Your task to perform on an android device: star an email in the gmail app Image 0: 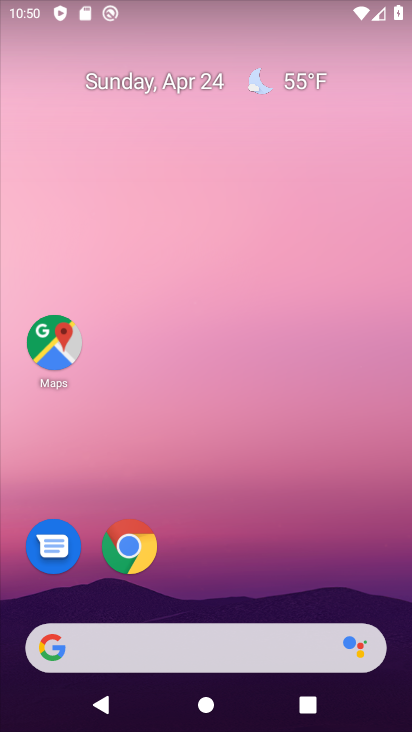
Step 0: drag from (238, 491) to (206, 32)
Your task to perform on an android device: star an email in the gmail app Image 1: 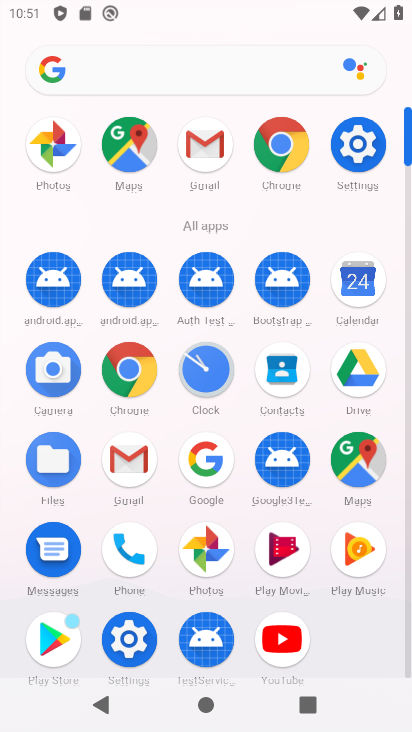
Step 1: click (203, 141)
Your task to perform on an android device: star an email in the gmail app Image 2: 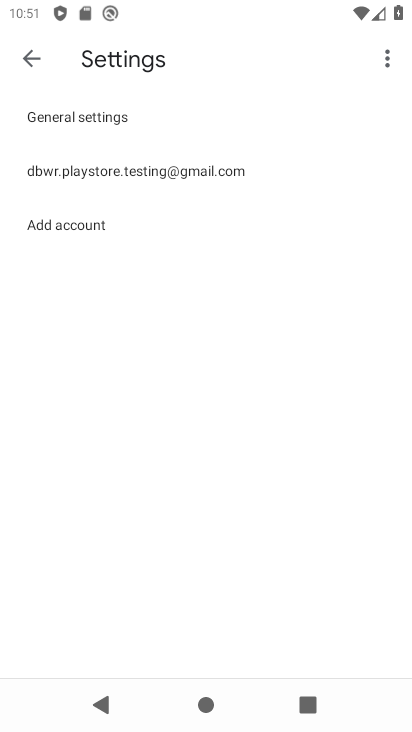
Step 2: press back button
Your task to perform on an android device: star an email in the gmail app Image 3: 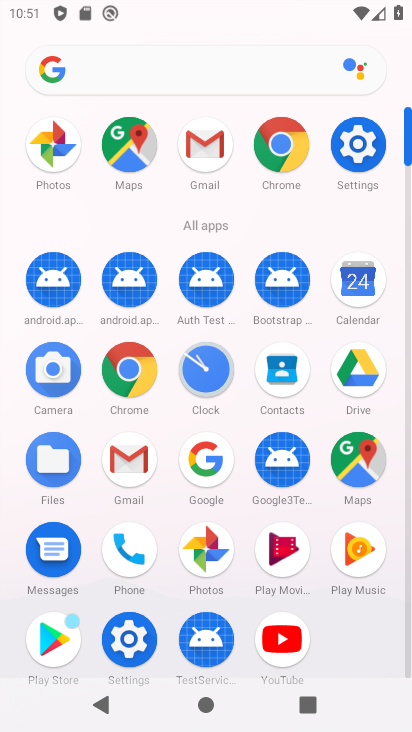
Step 3: click (203, 148)
Your task to perform on an android device: star an email in the gmail app Image 4: 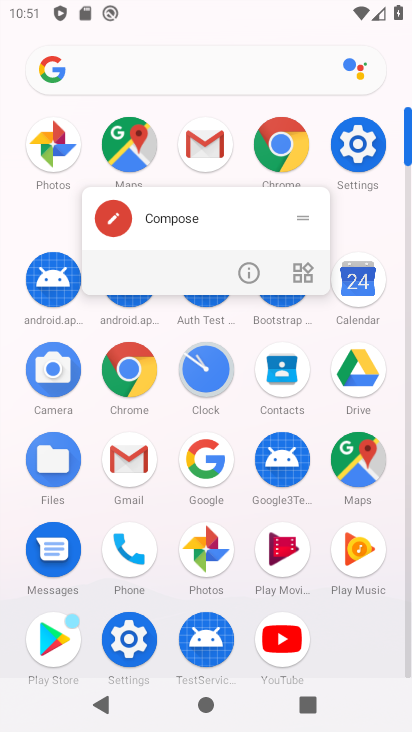
Step 4: click (203, 148)
Your task to perform on an android device: star an email in the gmail app Image 5: 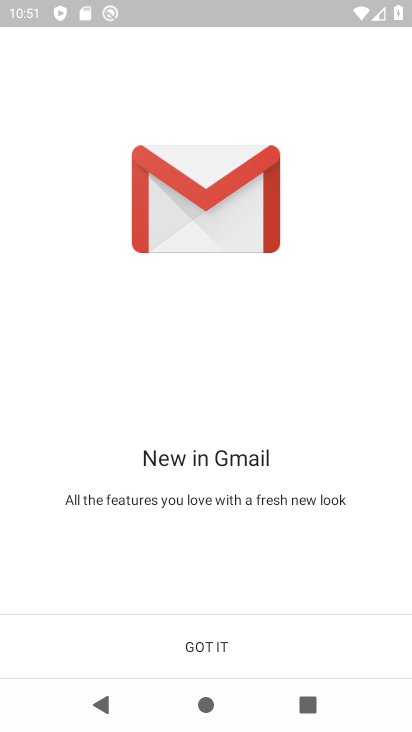
Step 5: click (201, 649)
Your task to perform on an android device: star an email in the gmail app Image 6: 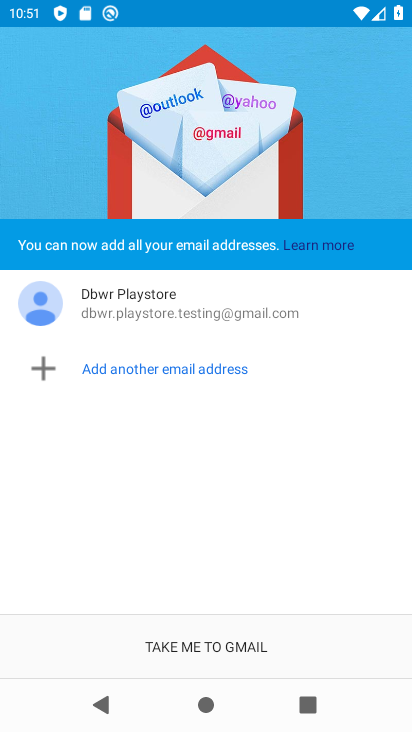
Step 6: click (201, 649)
Your task to perform on an android device: star an email in the gmail app Image 7: 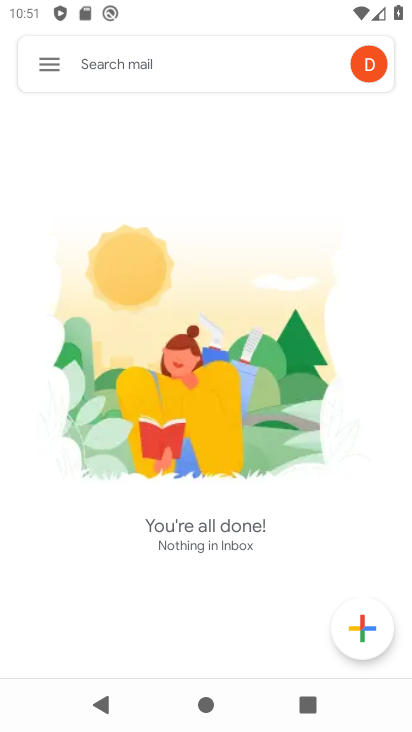
Step 7: click (48, 59)
Your task to perform on an android device: star an email in the gmail app Image 8: 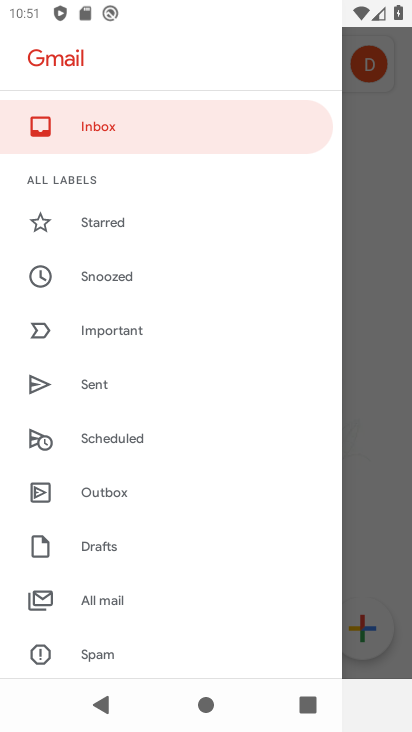
Step 8: drag from (128, 531) to (167, 426)
Your task to perform on an android device: star an email in the gmail app Image 9: 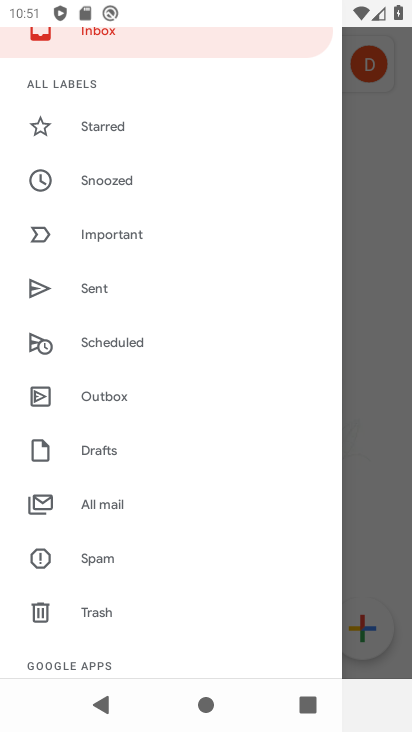
Step 9: drag from (182, 470) to (181, 391)
Your task to perform on an android device: star an email in the gmail app Image 10: 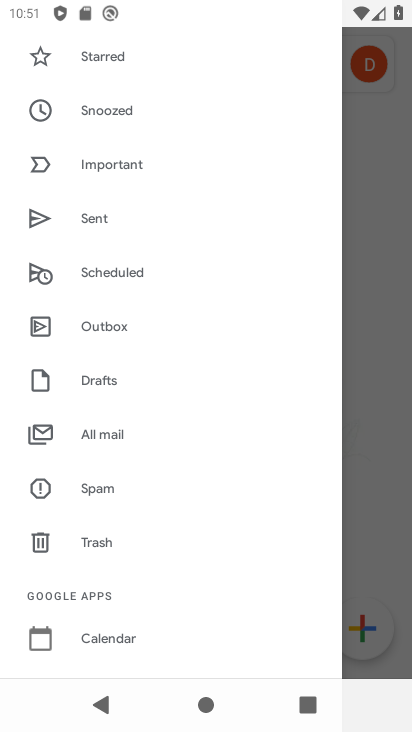
Step 10: drag from (138, 496) to (170, 415)
Your task to perform on an android device: star an email in the gmail app Image 11: 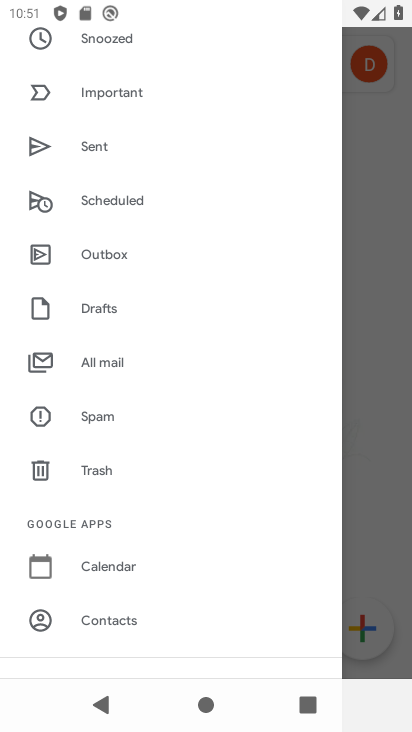
Step 11: drag from (177, 410) to (179, 483)
Your task to perform on an android device: star an email in the gmail app Image 12: 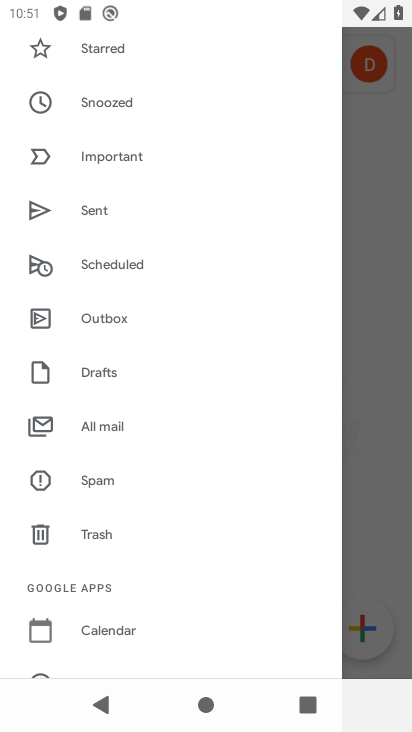
Step 12: drag from (178, 330) to (184, 387)
Your task to perform on an android device: star an email in the gmail app Image 13: 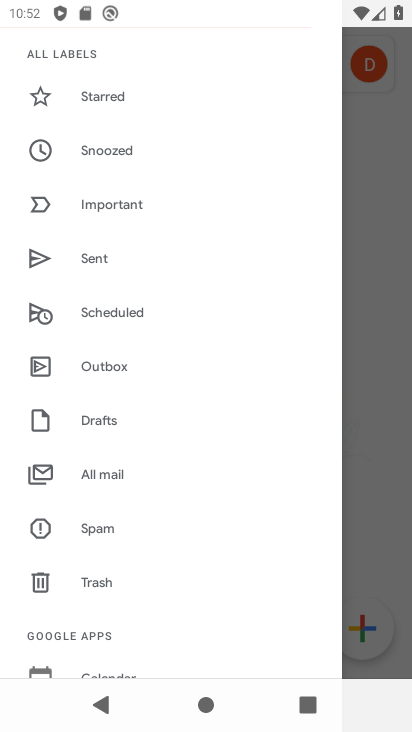
Step 13: drag from (183, 256) to (173, 341)
Your task to perform on an android device: star an email in the gmail app Image 14: 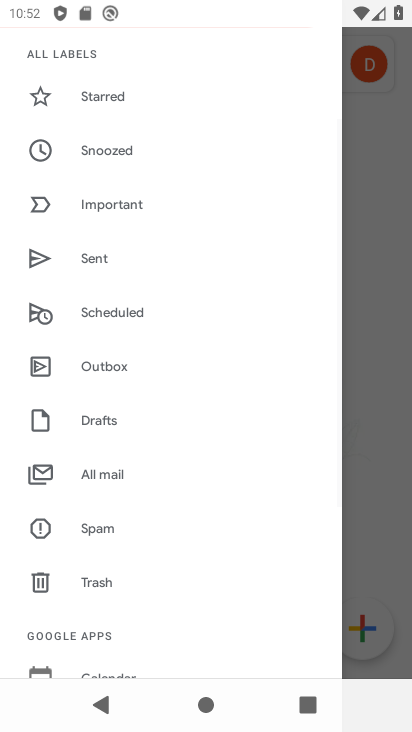
Step 14: drag from (143, 259) to (154, 371)
Your task to perform on an android device: star an email in the gmail app Image 15: 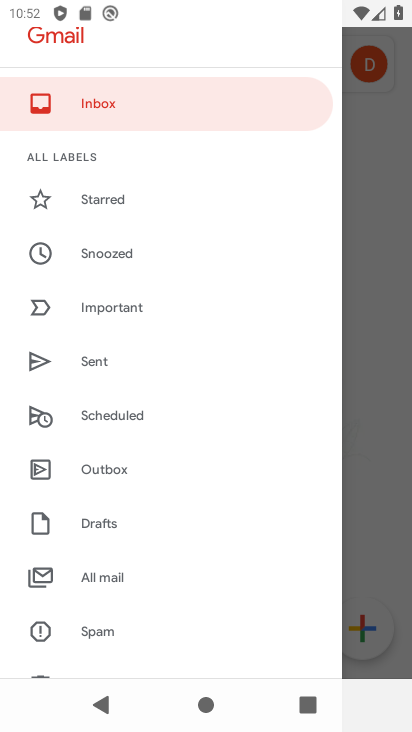
Step 15: drag from (198, 517) to (207, 389)
Your task to perform on an android device: star an email in the gmail app Image 16: 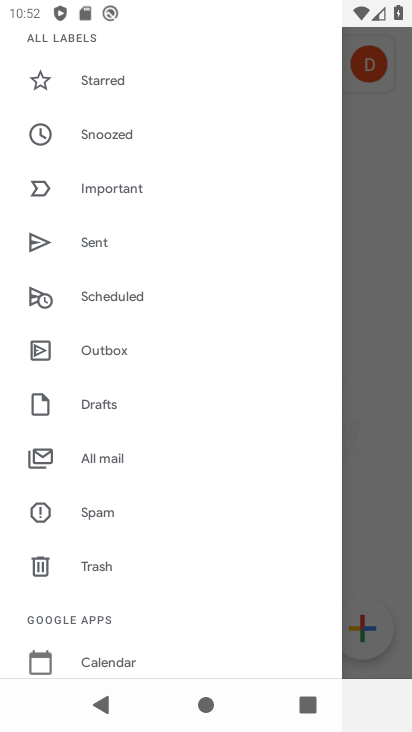
Step 16: drag from (132, 519) to (158, 431)
Your task to perform on an android device: star an email in the gmail app Image 17: 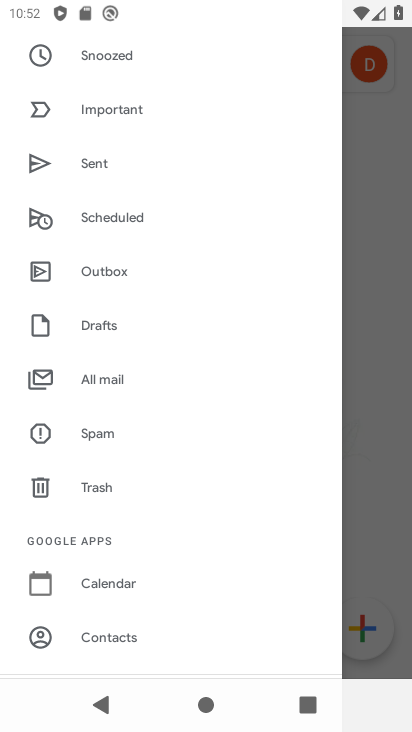
Step 17: drag from (183, 521) to (196, 420)
Your task to perform on an android device: star an email in the gmail app Image 18: 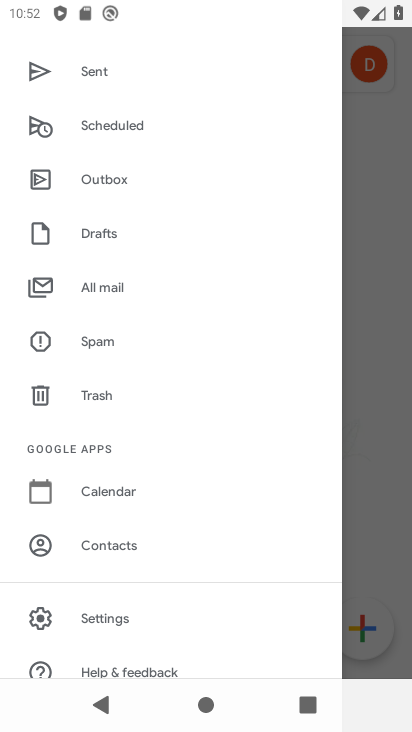
Step 18: drag from (152, 568) to (181, 477)
Your task to perform on an android device: star an email in the gmail app Image 19: 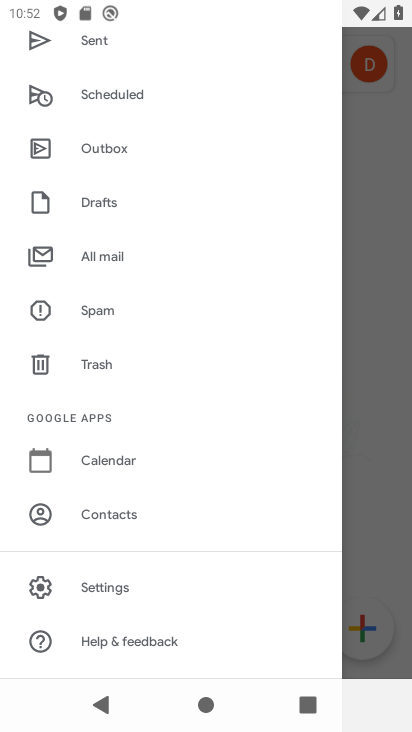
Step 19: click (118, 584)
Your task to perform on an android device: star an email in the gmail app Image 20: 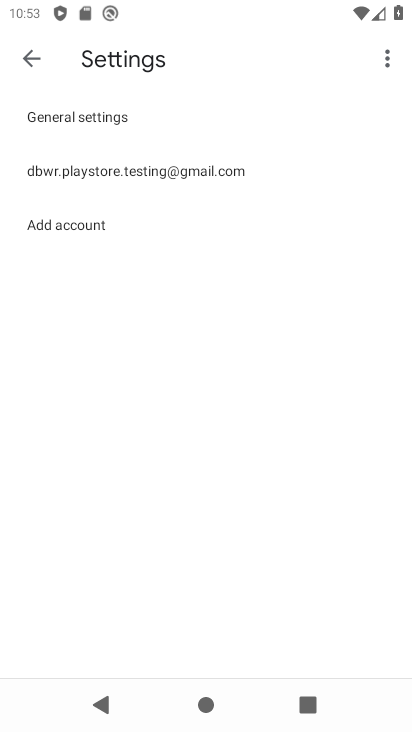
Step 20: task complete